Your task to perform on an android device: Set the phone to "Do not disturb". Image 0: 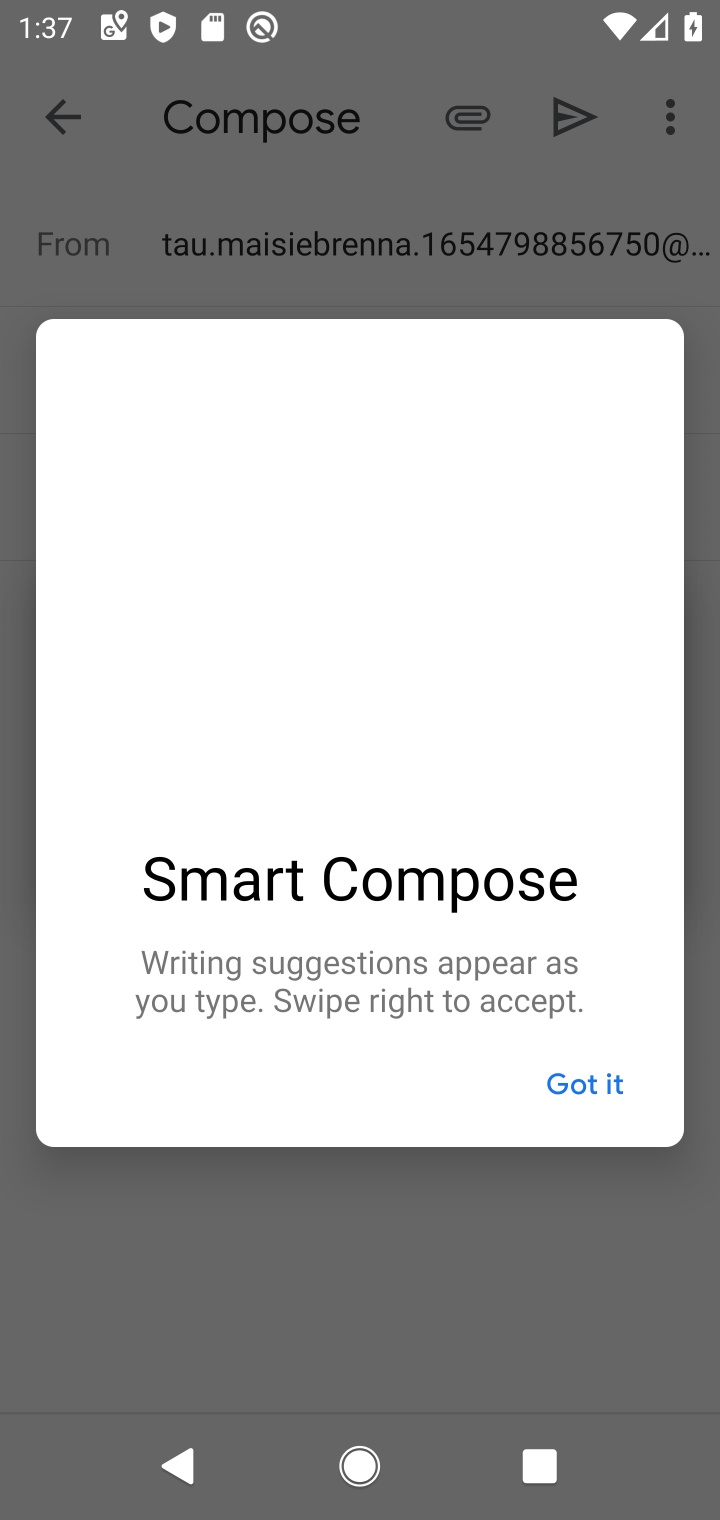
Step 0: press home button
Your task to perform on an android device: Set the phone to "Do not disturb". Image 1: 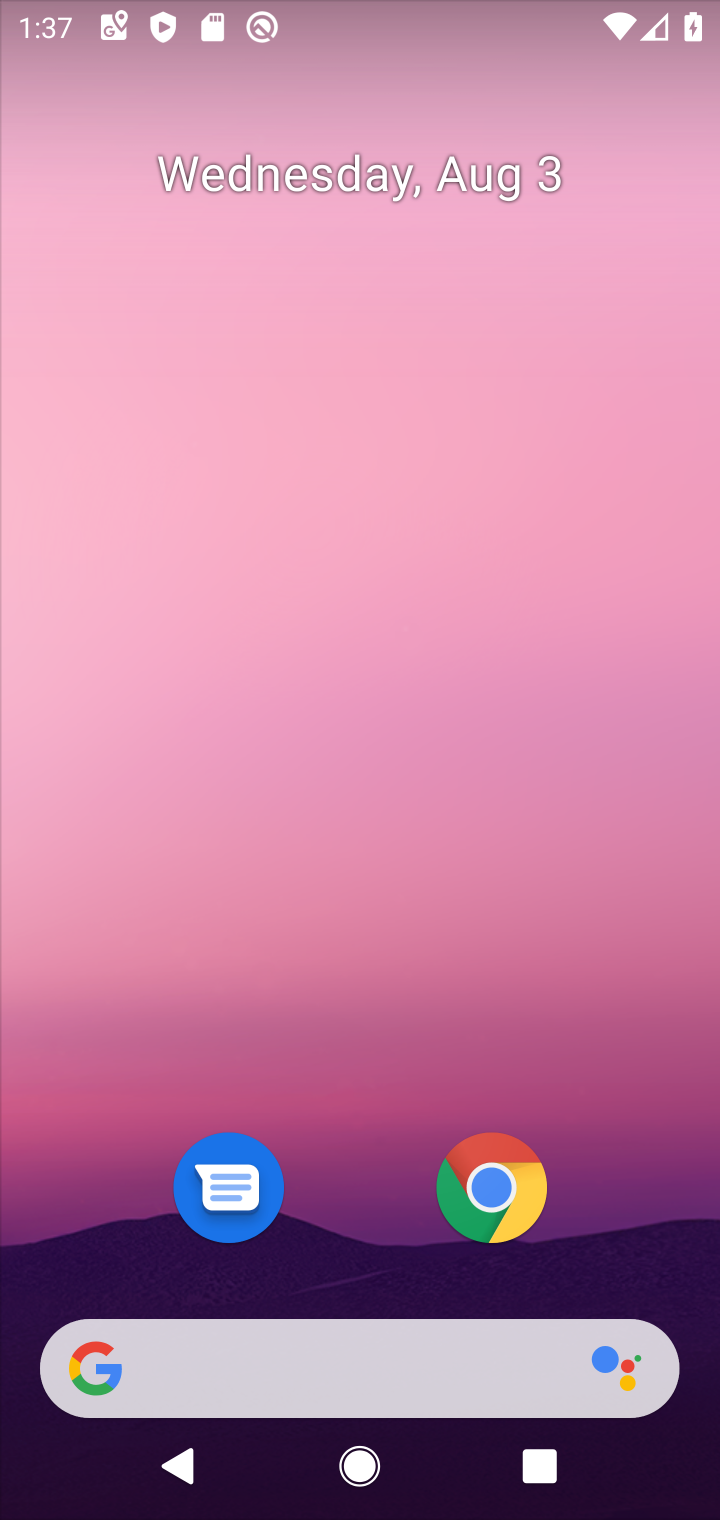
Step 1: drag from (381, 914) to (447, 113)
Your task to perform on an android device: Set the phone to "Do not disturb". Image 2: 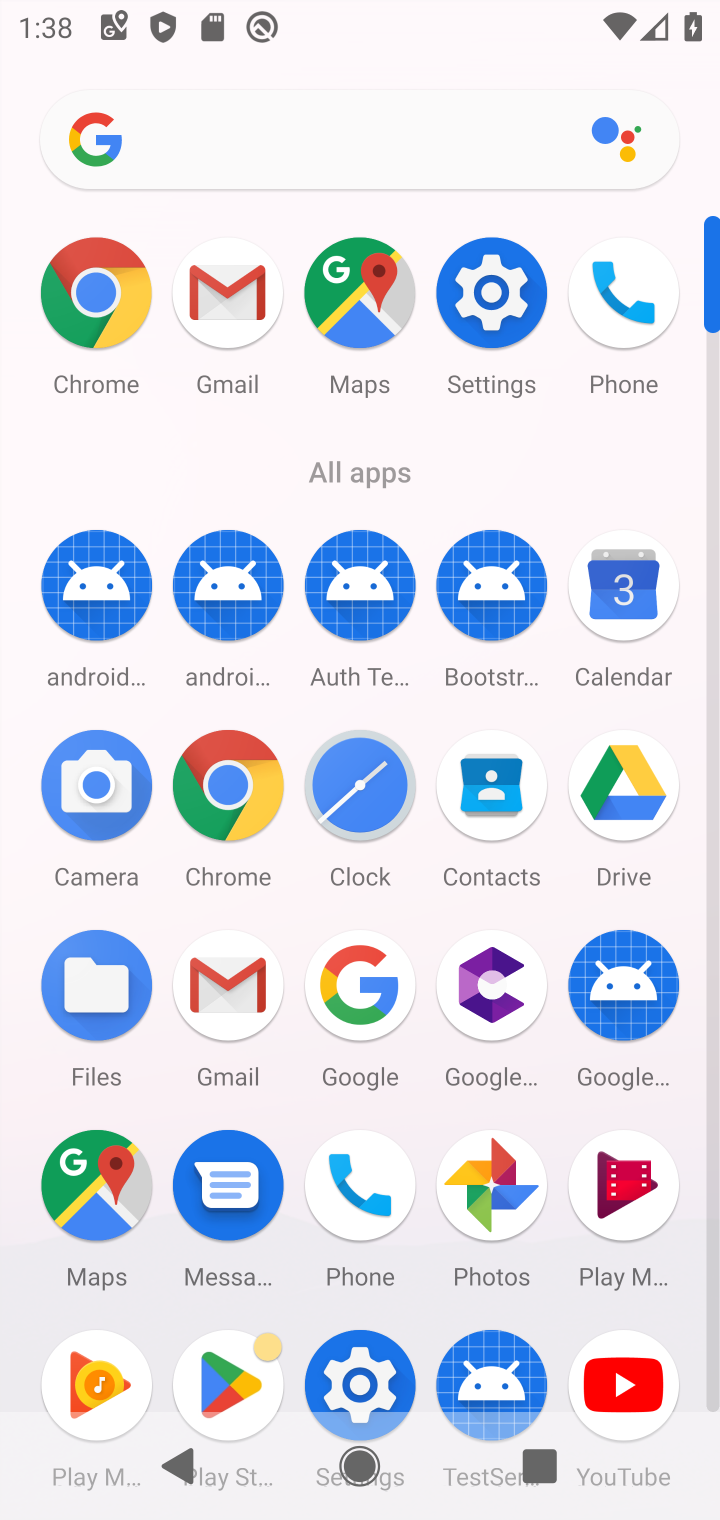
Step 2: click (496, 287)
Your task to perform on an android device: Set the phone to "Do not disturb". Image 3: 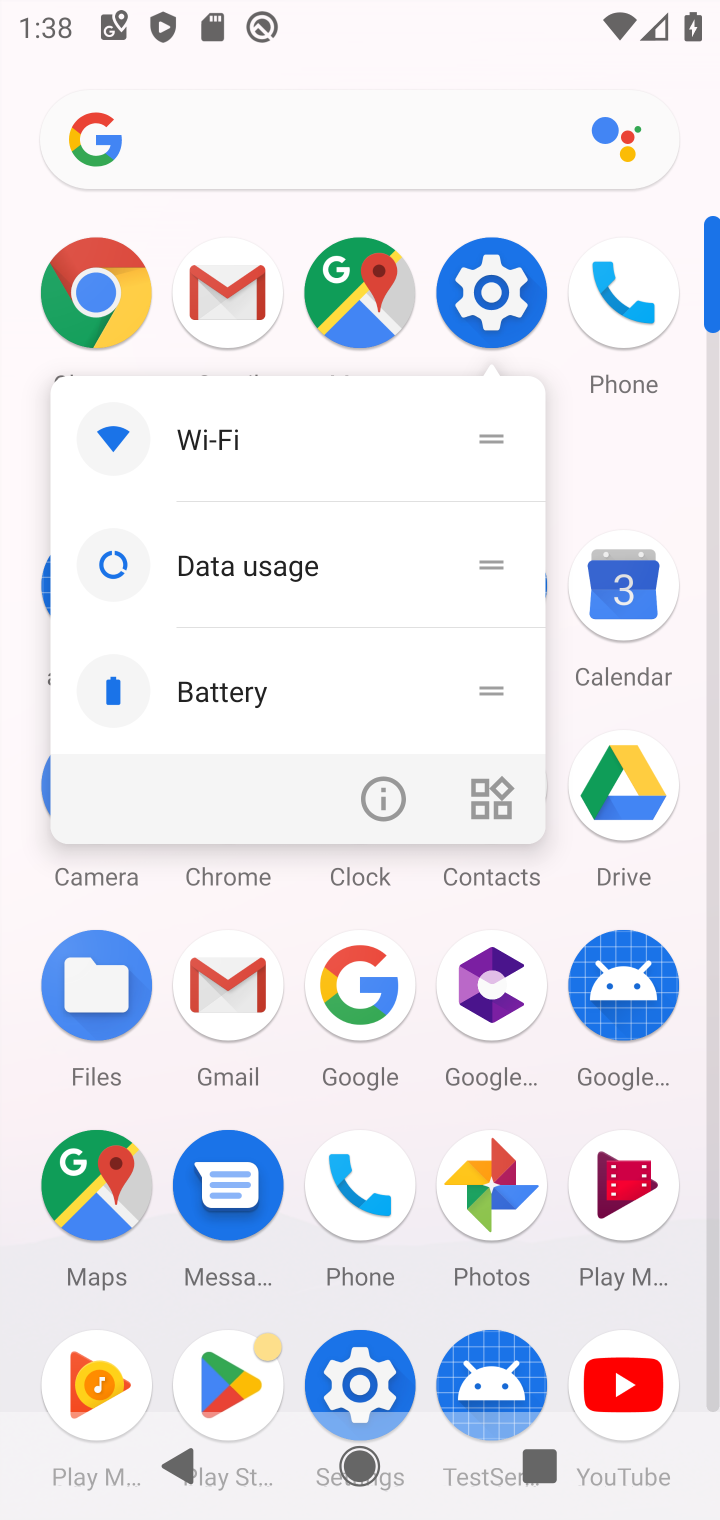
Step 3: click (496, 287)
Your task to perform on an android device: Set the phone to "Do not disturb". Image 4: 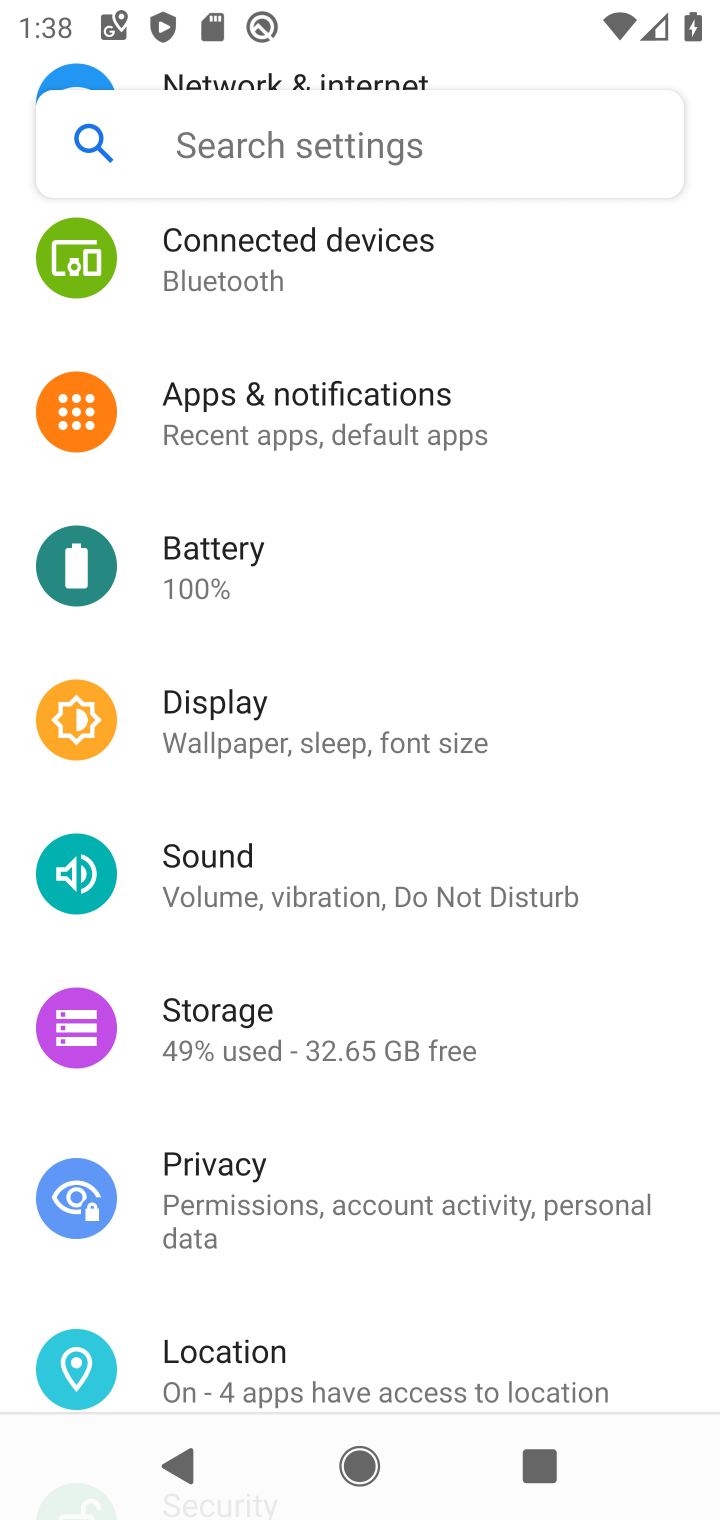
Step 4: click (430, 867)
Your task to perform on an android device: Set the phone to "Do not disturb". Image 5: 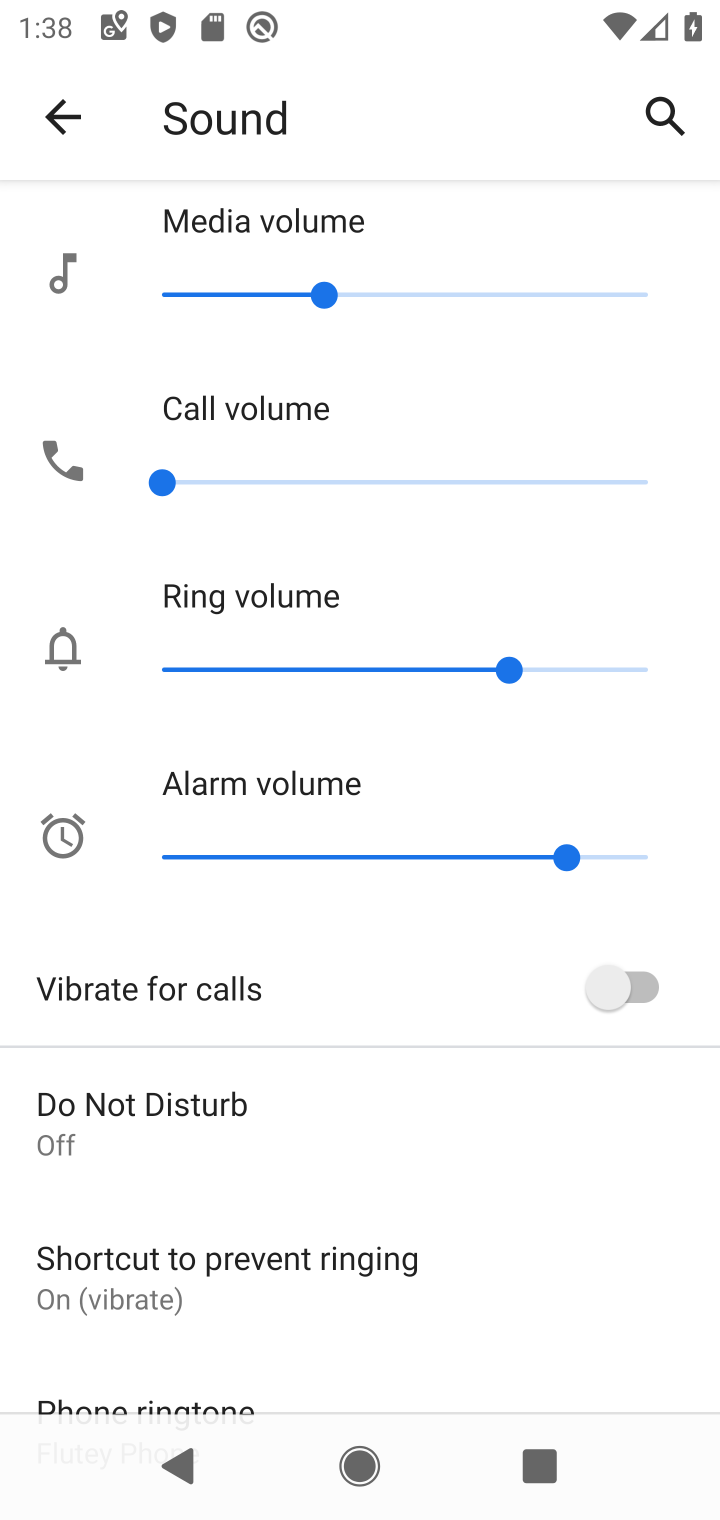
Step 5: click (194, 1133)
Your task to perform on an android device: Set the phone to "Do not disturb". Image 6: 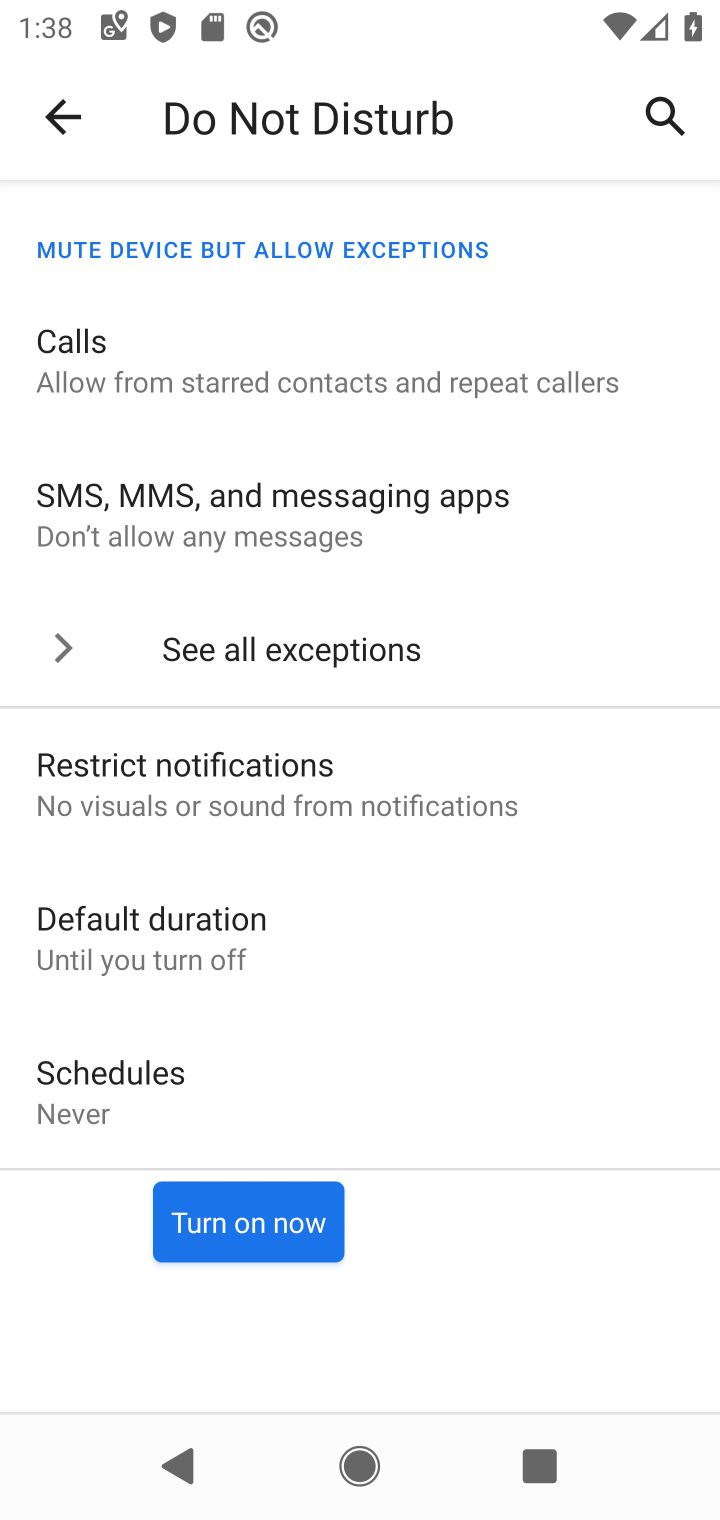
Step 6: click (225, 1205)
Your task to perform on an android device: Set the phone to "Do not disturb". Image 7: 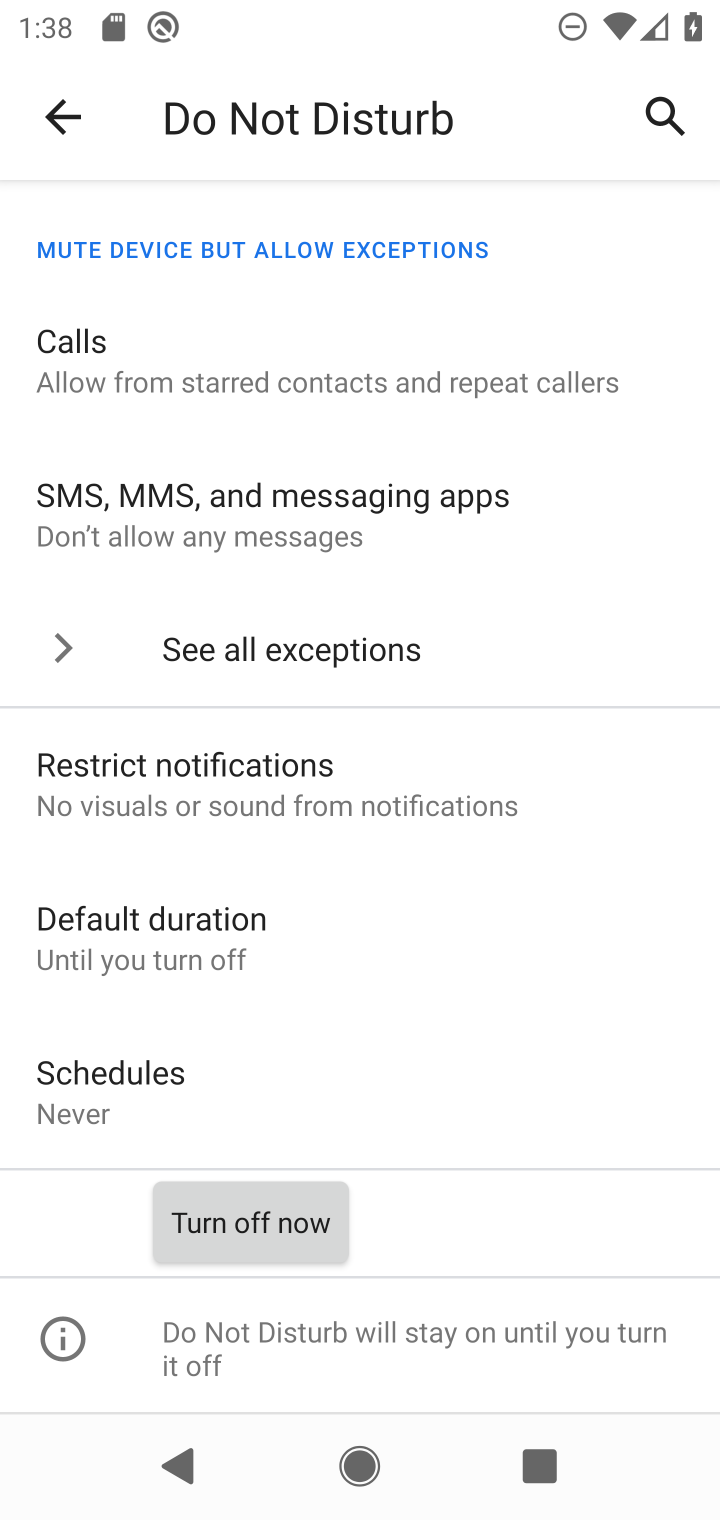
Step 7: task complete